Your task to perform on an android device: turn on data saver in the chrome app Image 0: 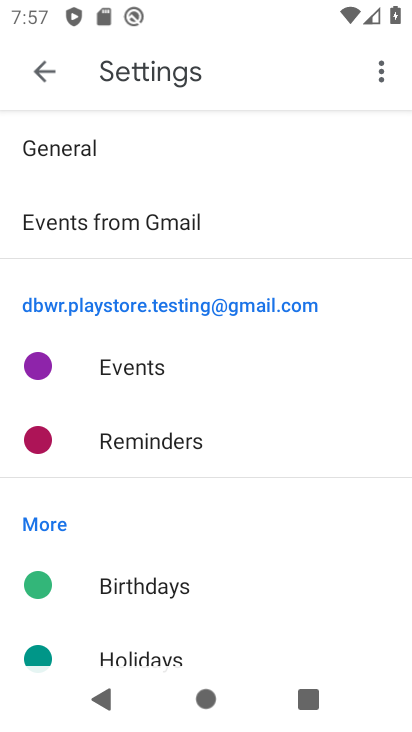
Step 0: press home button
Your task to perform on an android device: turn on data saver in the chrome app Image 1: 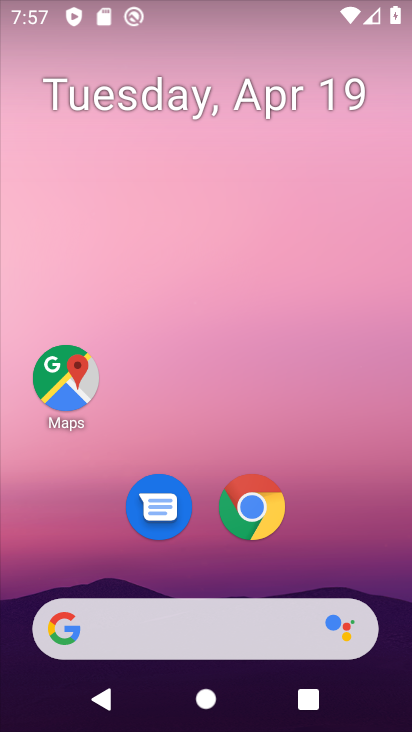
Step 1: click (253, 508)
Your task to perform on an android device: turn on data saver in the chrome app Image 2: 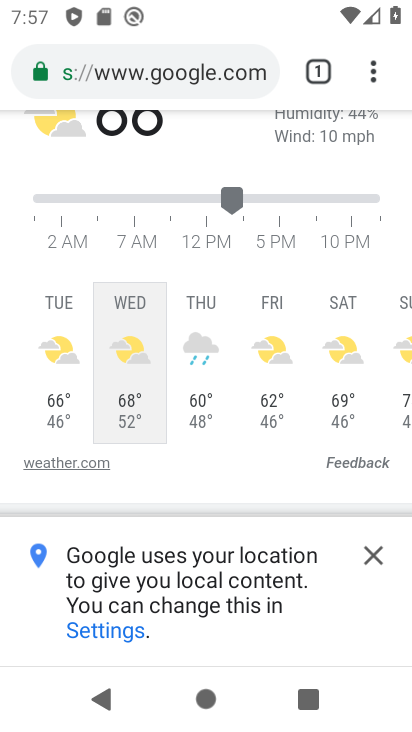
Step 2: click (376, 72)
Your task to perform on an android device: turn on data saver in the chrome app Image 3: 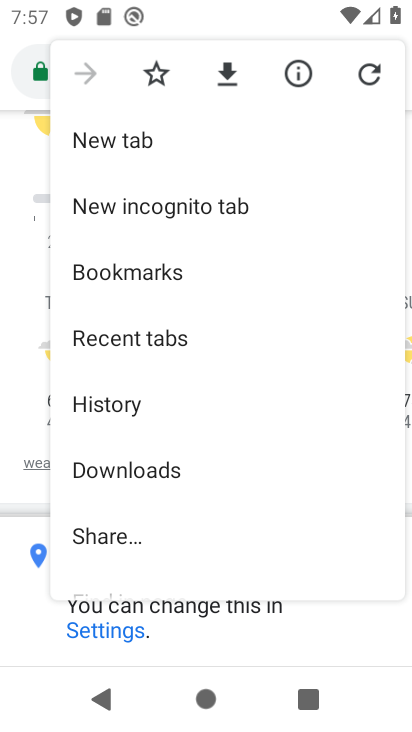
Step 3: drag from (127, 534) to (126, 167)
Your task to perform on an android device: turn on data saver in the chrome app Image 4: 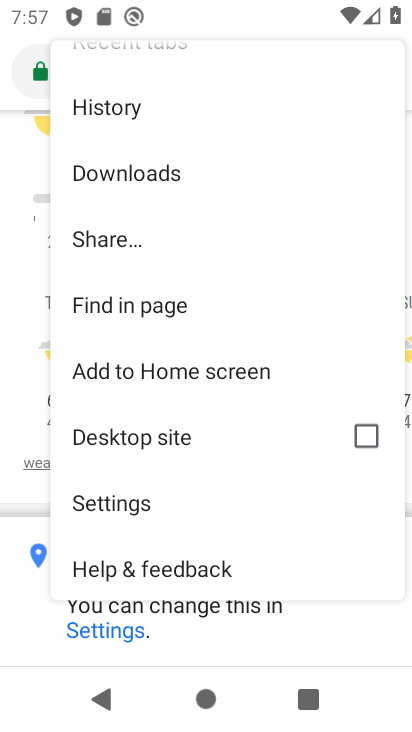
Step 4: click (115, 499)
Your task to perform on an android device: turn on data saver in the chrome app Image 5: 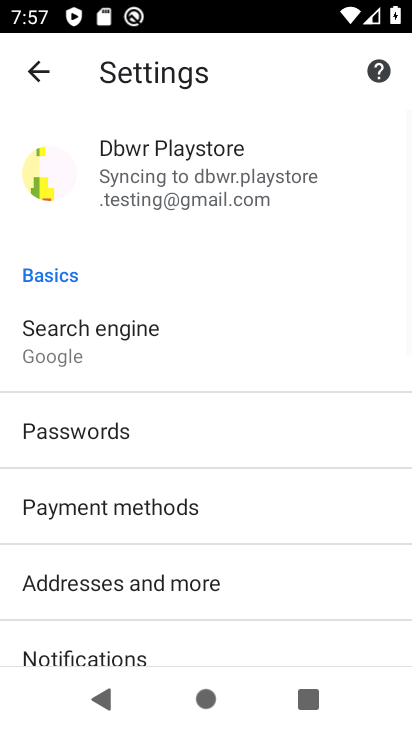
Step 5: drag from (182, 556) to (151, 185)
Your task to perform on an android device: turn on data saver in the chrome app Image 6: 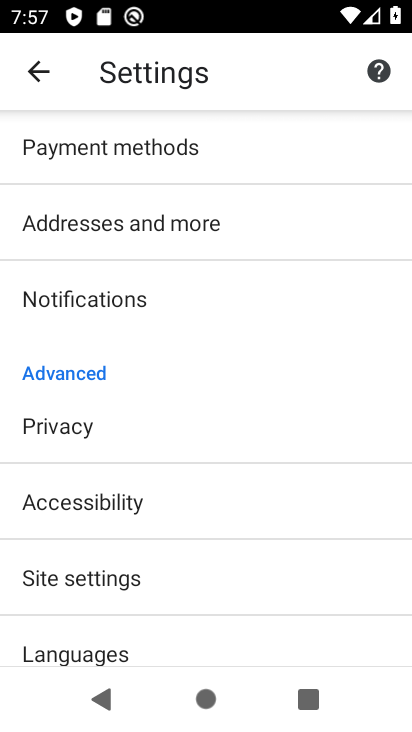
Step 6: drag from (137, 607) to (161, 318)
Your task to perform on an android device: turn on data saver in the chrome app Image 7: 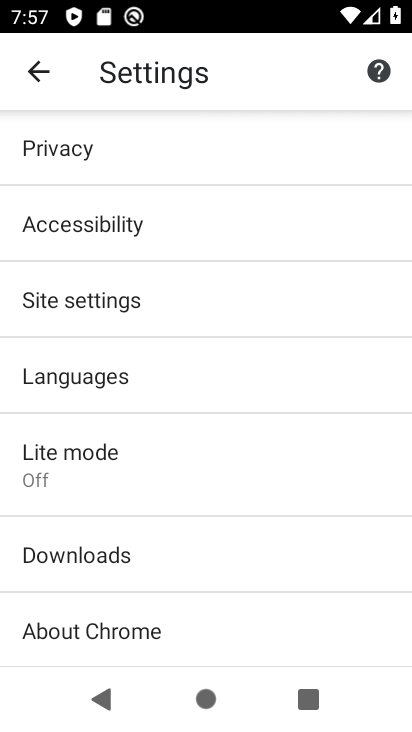
Step 7: click (55, 457)
Your task to perform on an android device: turn on data saver in the chrome app Image 8: 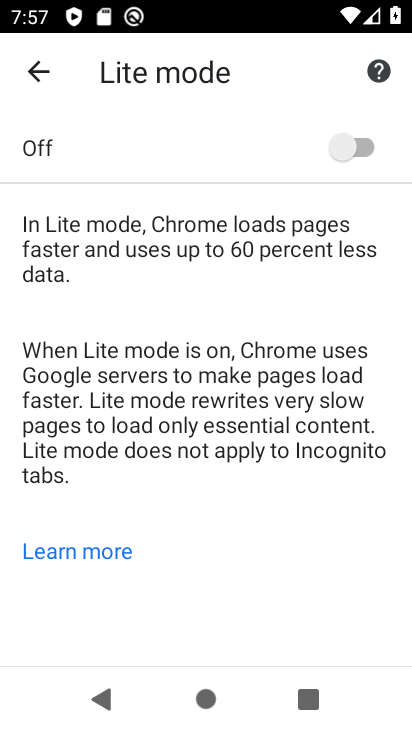
Step 8: click (357, 140)
Your task to perform on an android device: turn on data saver in the chrome app Image 9: 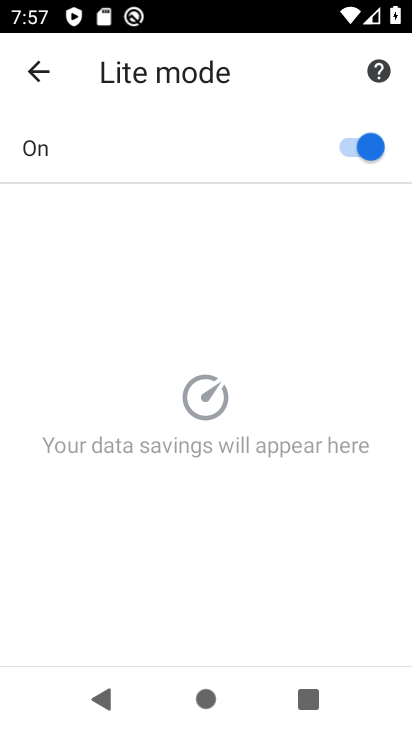
Step 9: task complete